Your task to perform on an android device: find photos in the google photos app Image 0: 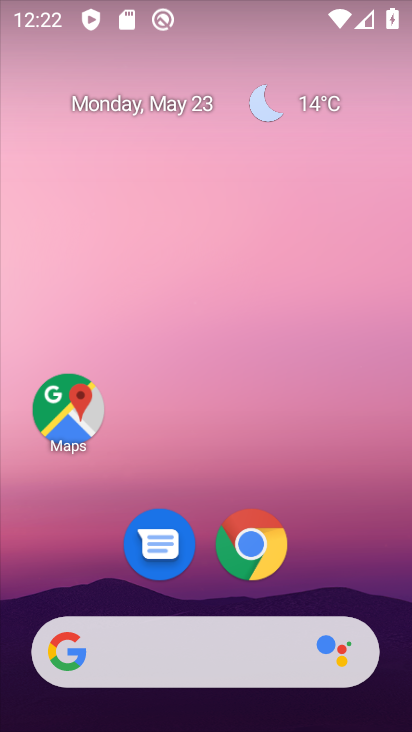
Step 0: drag from (331, 521) to (306, 90)
Your task to perform on an android device: find photos in the google photos app Image 1: 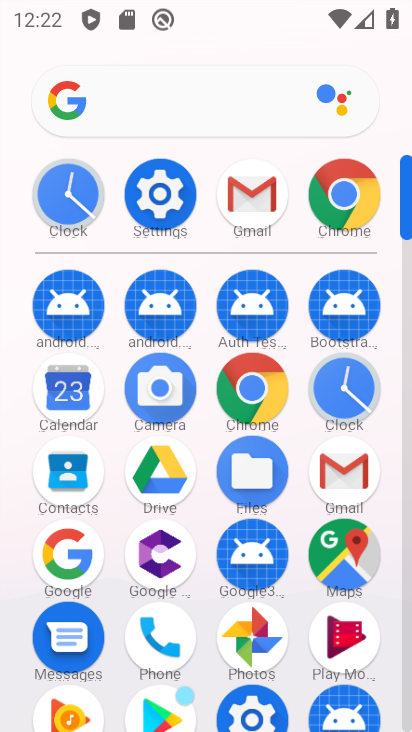
Step 1: click (253, 636)
Your task to perform on an android device: find photos in the google photos app Image 2: 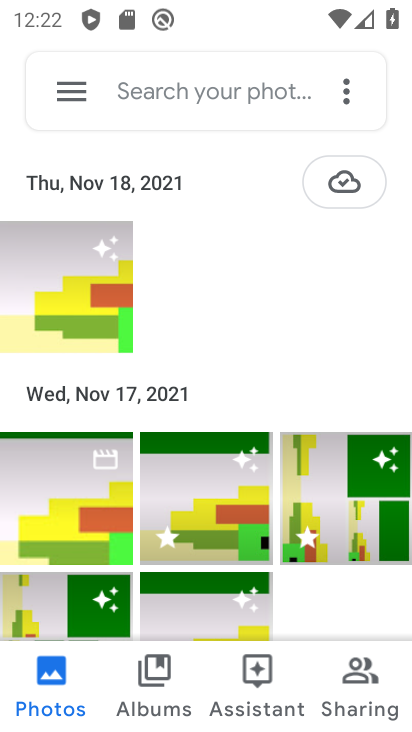
Step 2: task complete